Your task to perform on an android device: toggle priority inbox in the gmail app Image 0: 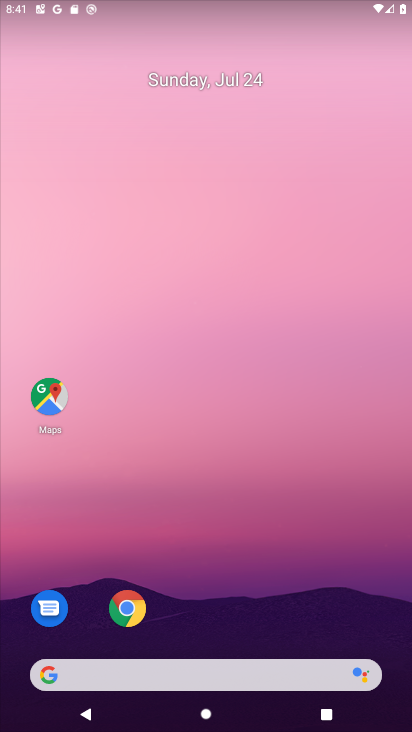
Step 0: drag from (190, 633) to (211, 19)
Your task to perform on an android device: toggle priority inbox in the gmail app Image 1: 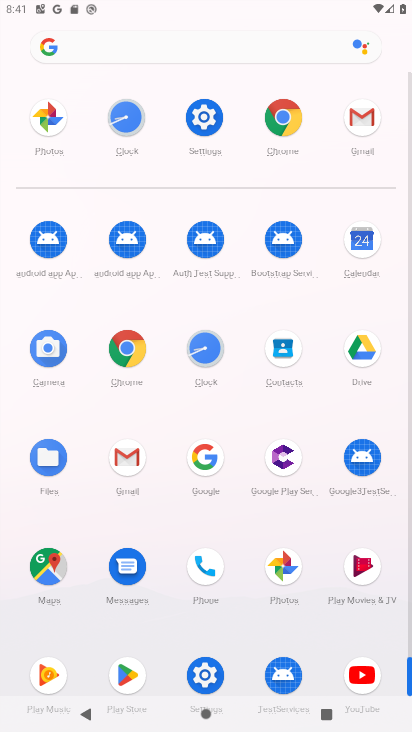
Step 1: click (369, 152)
Your task to perform on an android device: toggle priority inbox in the gmail app Image 2: 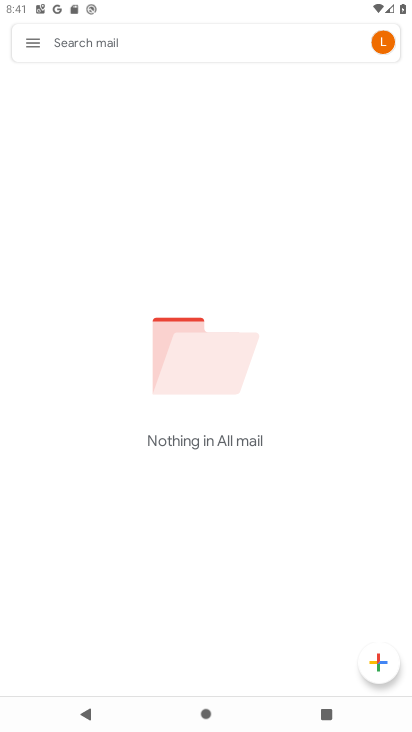
Step 2: click (46, 44)
Your task to perform on an android device: toggle priority inbox in the gmail app Image 3: 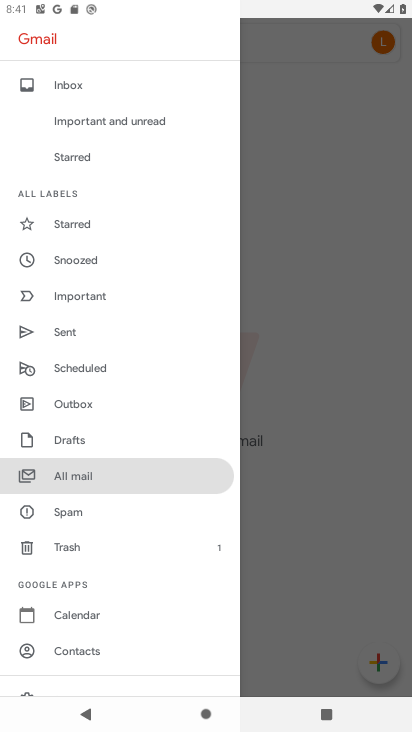
Step 3: drag from (61, 634) to (138, 137)
Your task to perform on an android device: toggle priority inbox in the gmail app Image 4: 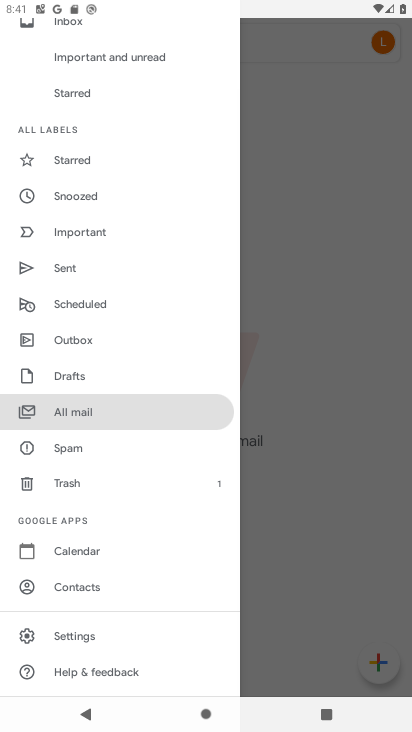
Step 4: click (65, 630)
Your task to perform on an android device: toggle priority inbox in the gmail app Image 5: 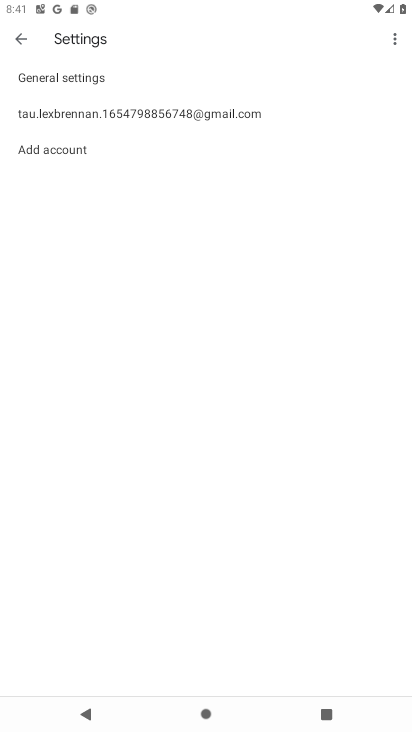
Step 5: click (267, 129)
Your task to perform on an android device: toggle priority inbox in the gmail app Image 6: 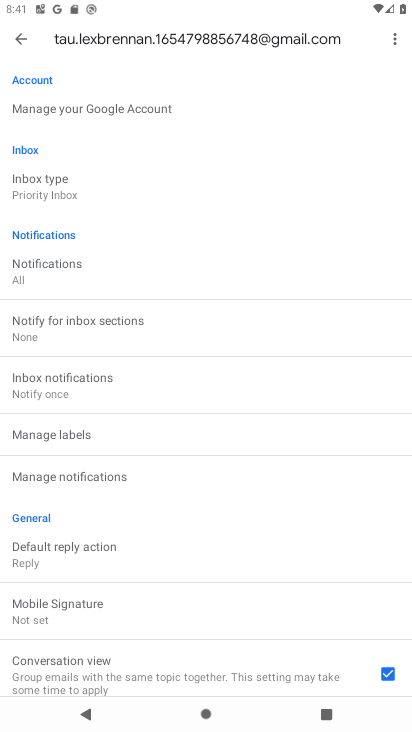
Step 6: click (102, 196)
Your task to perform on an android device: toggle priority inbox in the gmail app Image 7: 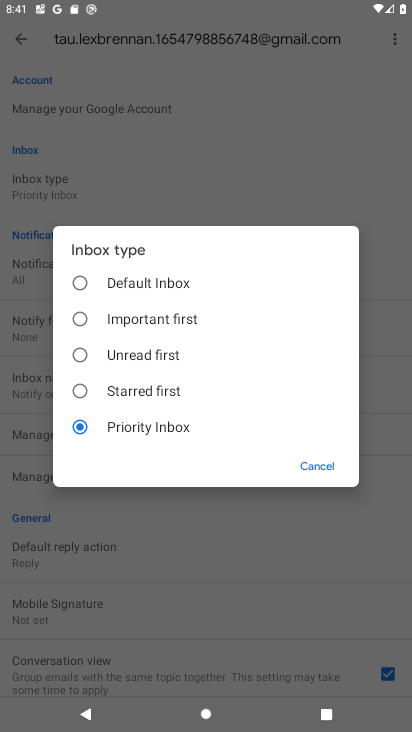
Step 7: click (103, 369)
Your task to perform on an android device: toggle priority inbox in the gmail app Image 8: 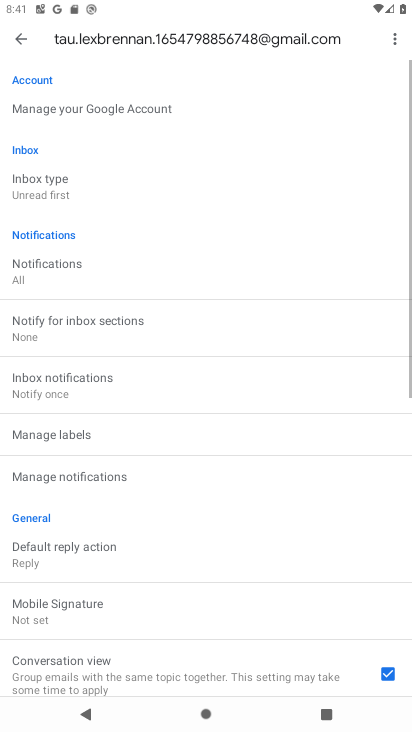
Step 8: task complete